Your task to perform on an android device: remove spam from my inbox in the gmail app Image 0: 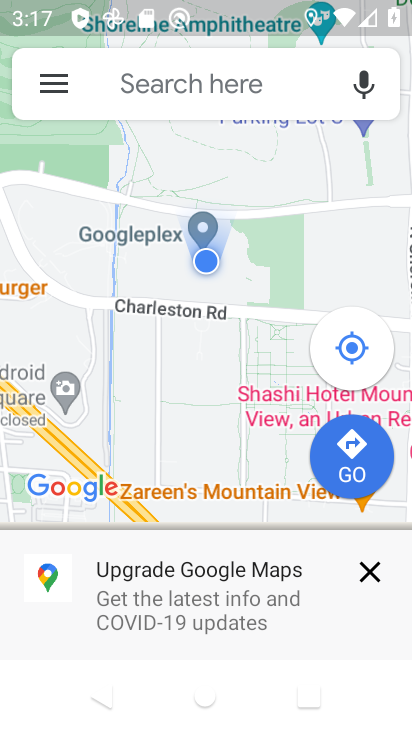
Step 0: press home button
Your task to perform on an android device: remove spam from my inbox in the gmail app Image 1: 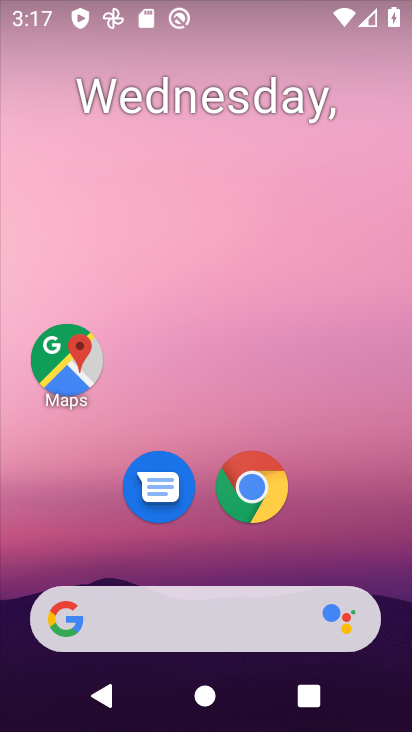
Step 1: drag from (355, 557) to (357, 256)
Your task to perform on an android device: remove spam from my inbox in the gmail app Image 2: 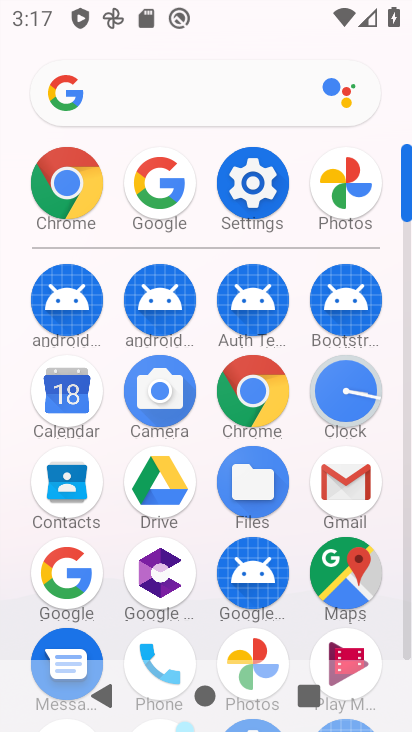
Step 2: drag from (394, 627) to (394, 463)
Your task to perform on an android device: remove spam from my inbox in the gmail app Image 3: 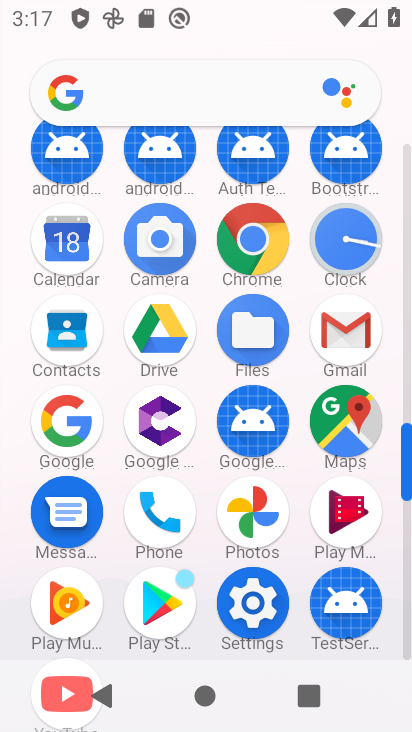
Step 3: click (351, 355)
Your task to perform on an android device: remove spam from my inbox in the gmail app Image 4: 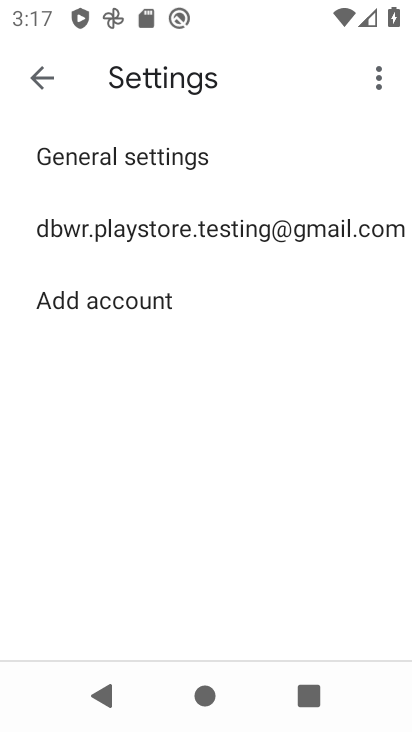
Step 4: click (39, 80)
Your task to perform on an android device: remove spam from my inbox in the gmail app Image 5: 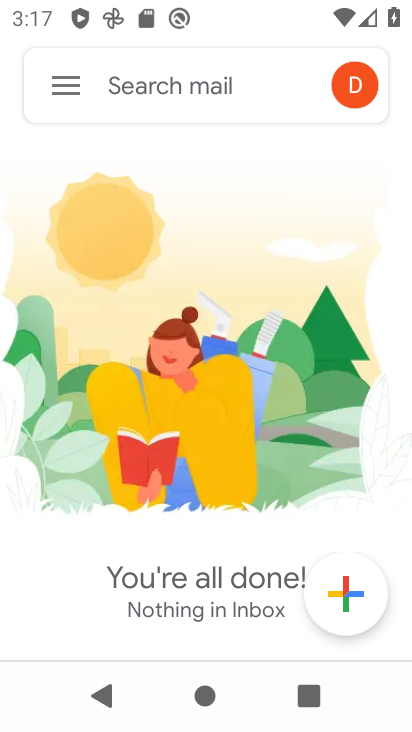
Step 5: click (66, 90)
Your task to perform on an android device: remove spam from my inbox in the gmail app Image 6: 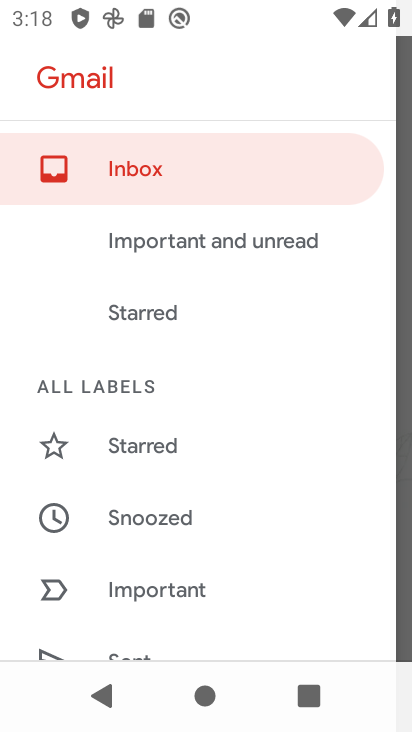
Step 6: drag from (307, 562) to (317, 440)
Your task to perform on an android device: remove spam from my inbox in the gmail app Image 7: 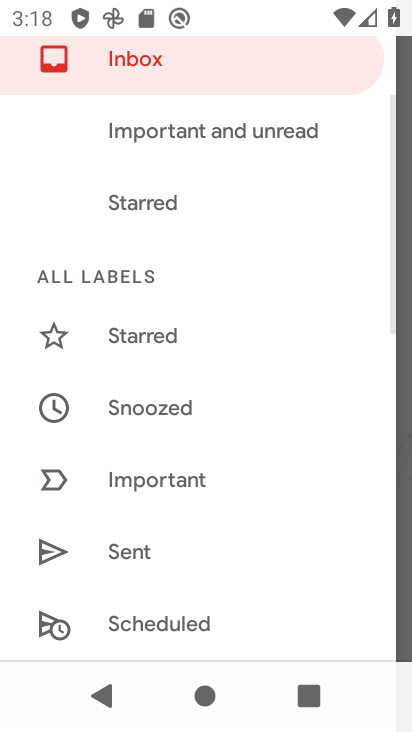
Step 7: drag from (315, 593) to (323, 458)
Your task to perform on an android device: remove spam from my inbox in the gmail app Image 8: 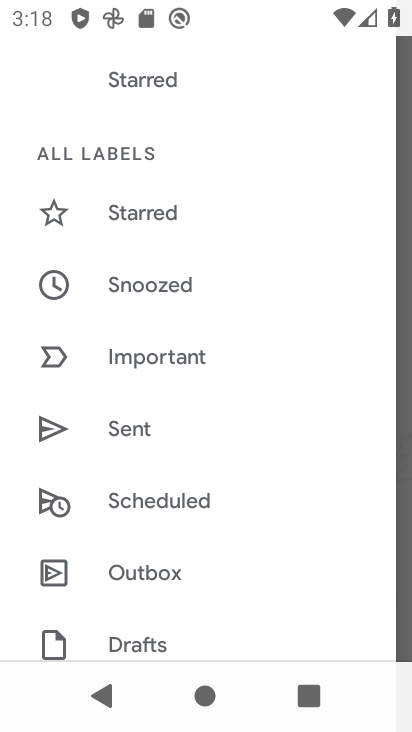
Step 8: drag from (287, 579) to (293, 444)
Your task to perform on an android device: remove spam from my inbox in the gmail app Image 9: 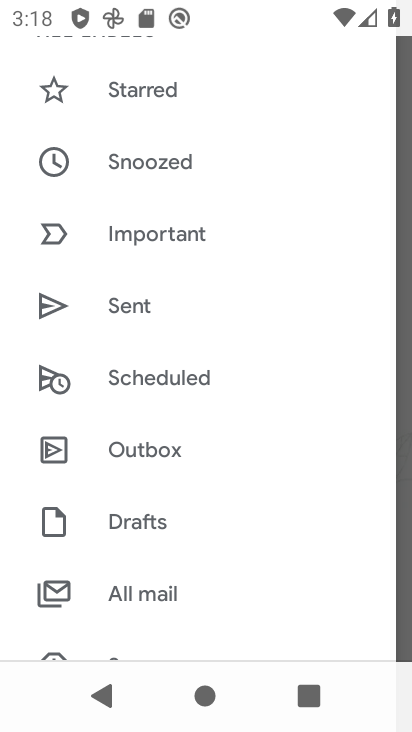
Step 9: drag from (279, 576) to (281, 456)
Your task to perform on an android device: remove spam from my inbox in the gmail app Image 10: 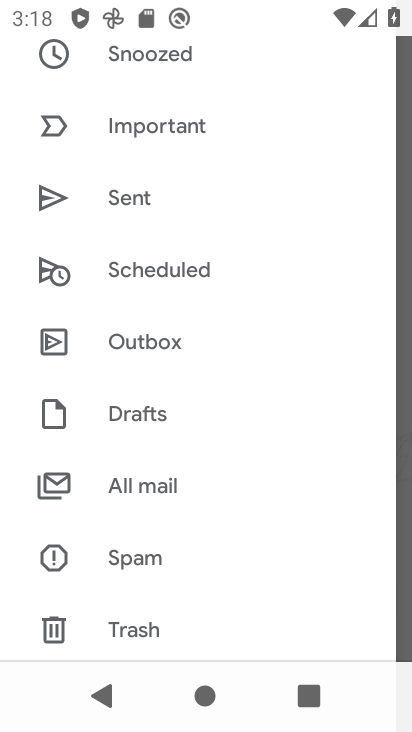
Step 10: drag from (270, 584) to (280, 491)
Your task to perform on an android device: remove spam from my inbox in the gmail app Image 11: 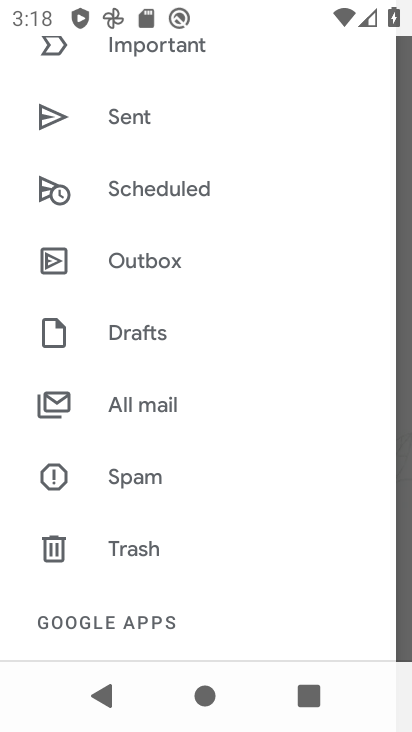
Step 11: drag from (274, 597) to (287, 467)
Your task to perform on an android device: remove spam from my inbox in the gmail app Image 12: 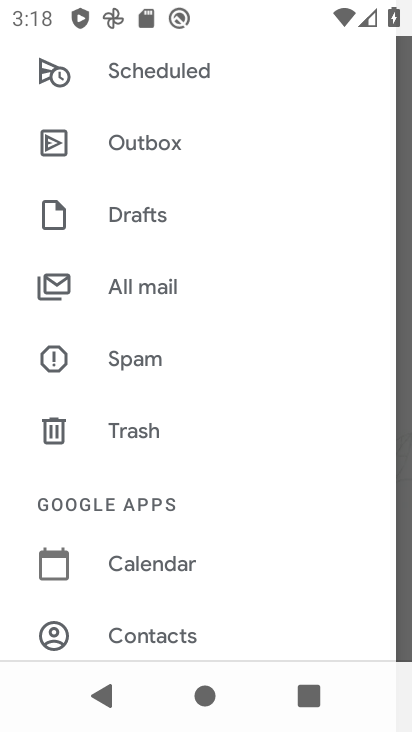
Step 12: drag from (278, 575) to (274, 463)
Your task to perform on an android device: remove spam from my inbox in the gmail app Image 13: 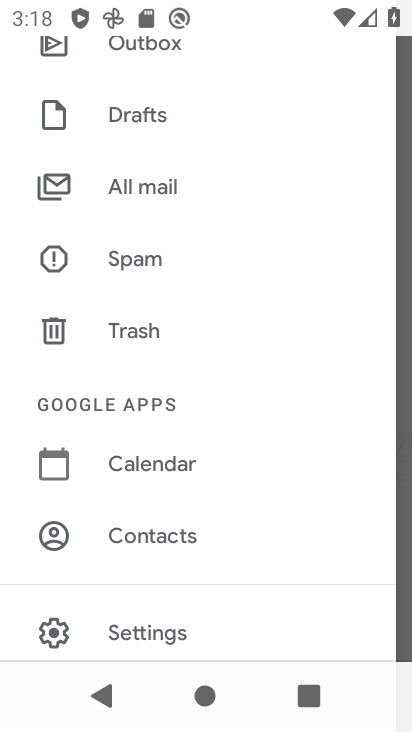
Step 13: drag from (276, 615) to (285, 499)
Your task to perform on an android device: remove spam from my inbox in the gmail app Image 14: 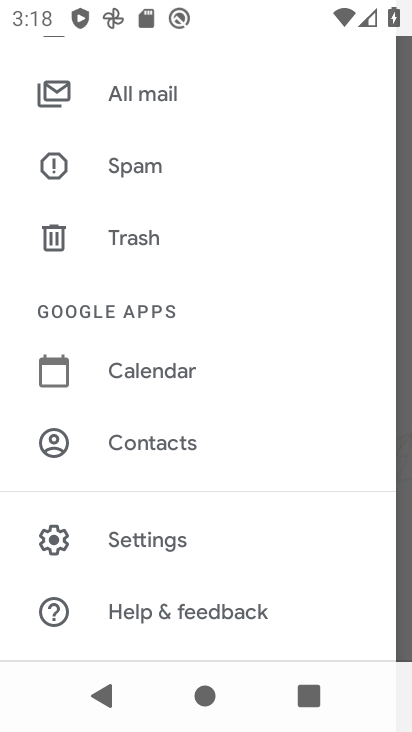
Step 14: drag from (280, 625) to (292, 476)
Your task to perform on an android device: remove spam from my inbox in the gmail app Image 15: 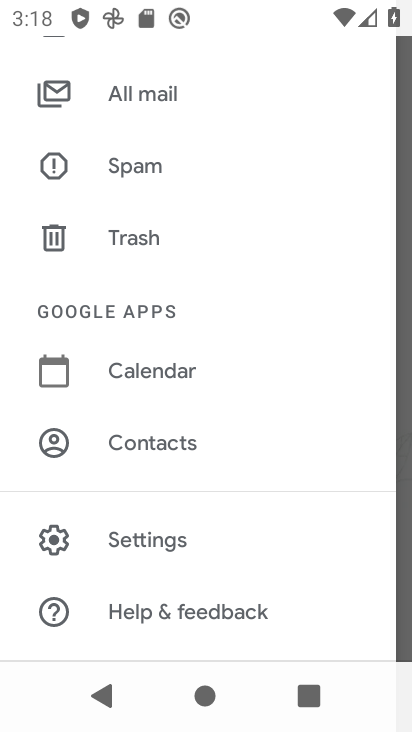
Step 15: drag from (286, 314) to (291, 460)
Your task to perform on an android device: remove spam from my inbox in the gmail app Image 16: 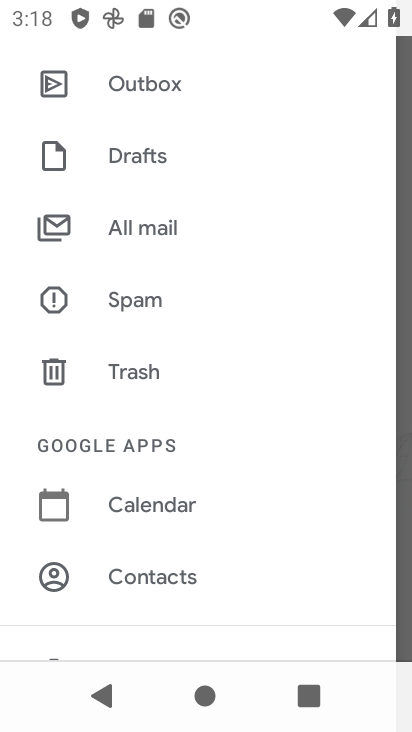
Step 16: click (158, 296)
Your task to perform on an android device: remove spam from my inbox in the gmail app Image 17: 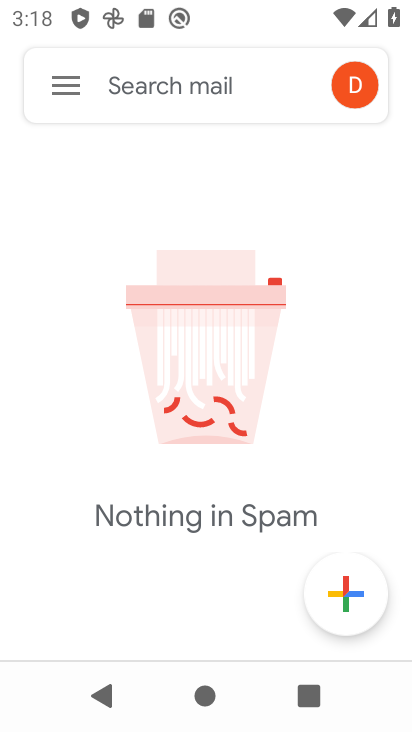
Step 17: task complete